Your task to perform on an android device: Go to notification settings Image 0: 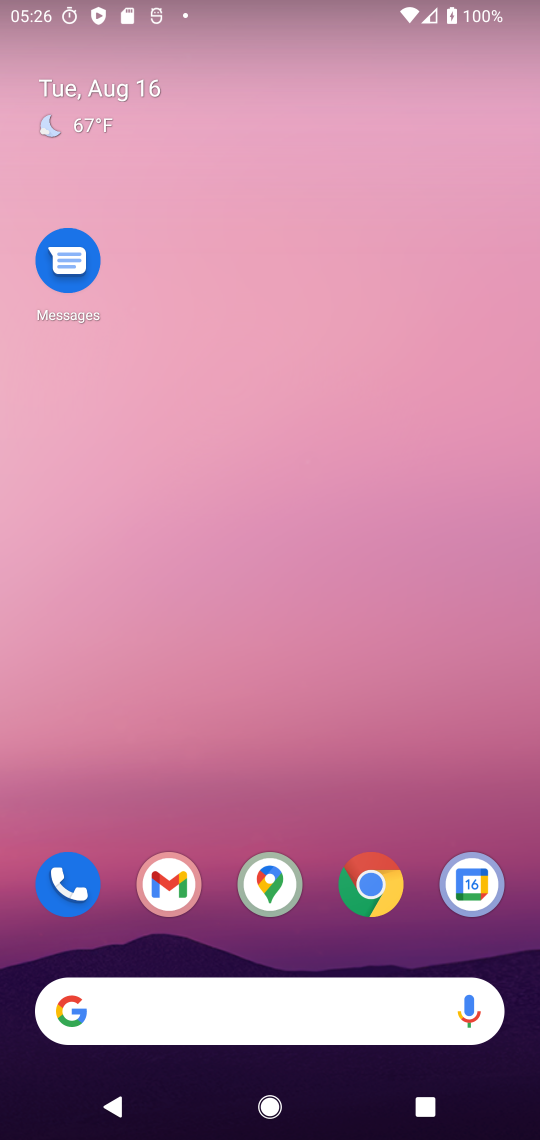
Step 0: drag from (52, 1079) to (363, 303)
Your task to perform on an android device: Go to notification settings Image 1: 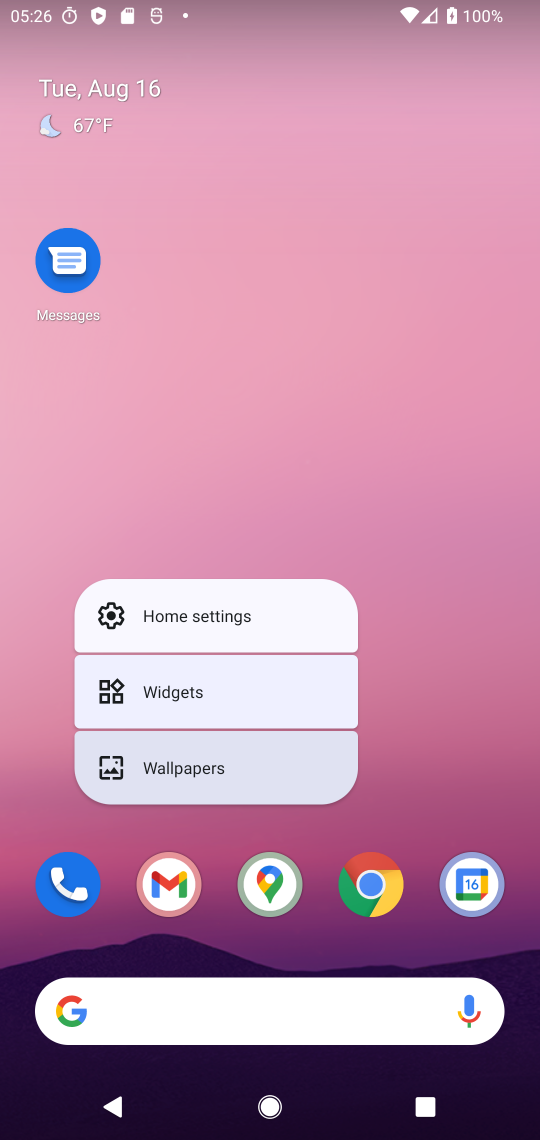
Step 1: click (58, 1081)
Your task to perform on an android device: Go to notification settings Image 2: 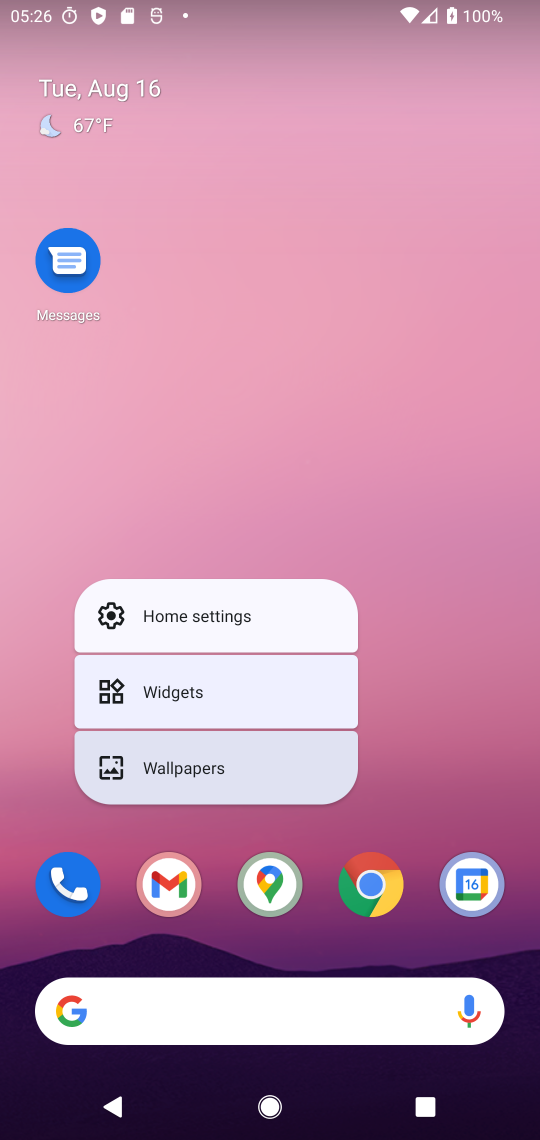
Step 2: task complete